Your task to perform on an android device: change notifications settings Image 0: 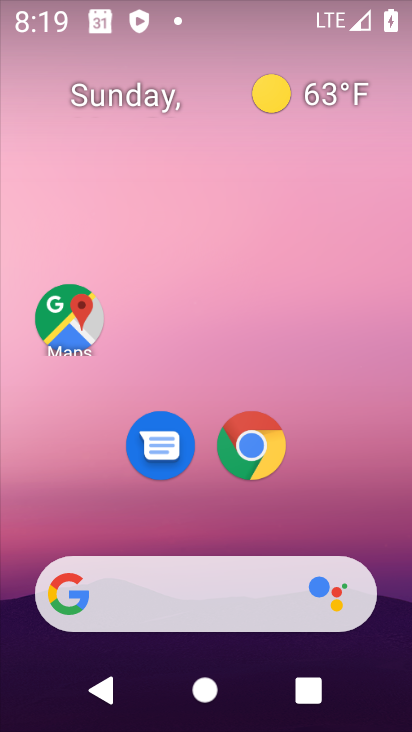
Step 0: drag from (228, 533) to (351, 1)
Your task to perform on an android device: change notifications settings Image 1: 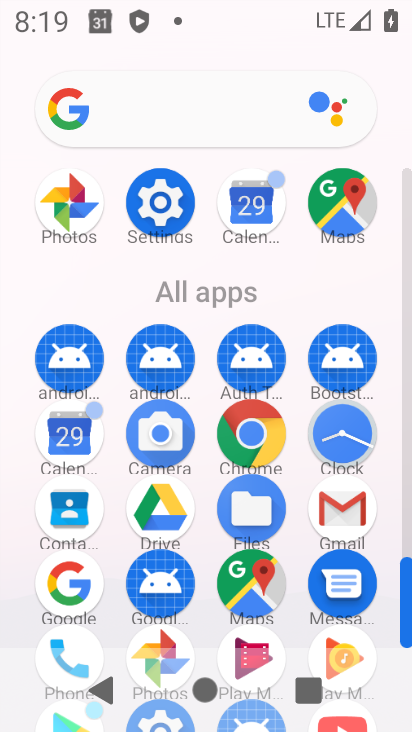
Step 1: click (163, 190)
Your task to perform on an android device: change notifications settings Image 2: 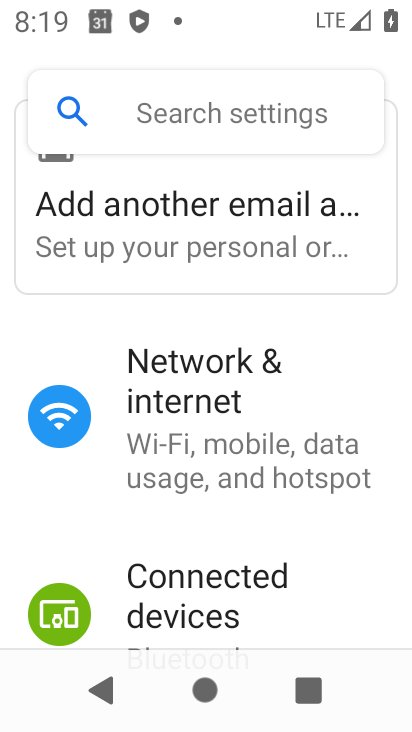
Step 2: drag from (199, 527) to (229, 8)
Your task to perform on an android device: change notifications settings Image 3: 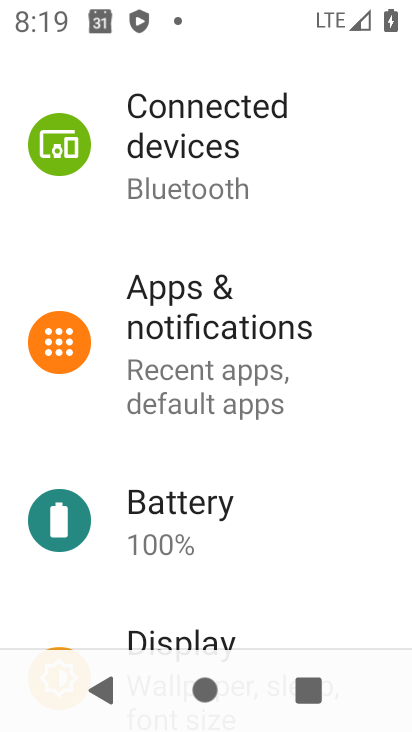
Step 3: click (178, 315)
Your task to perform on an android device: change notifications settings Image 4: 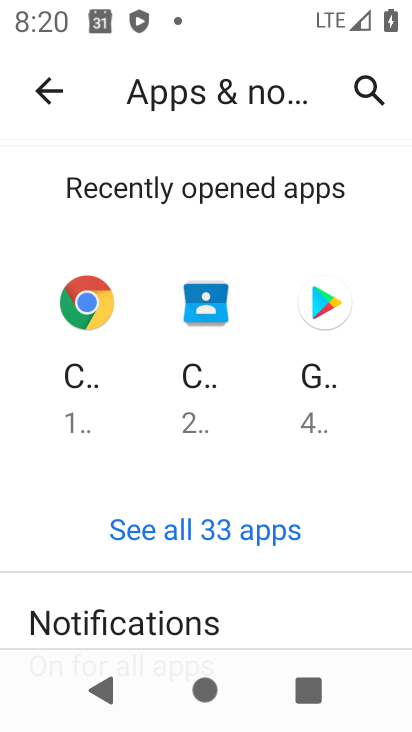
Step 4: drag from (172, 421) to (194, 256)
Your task to perform on an android device: change notifications settings Image 5: 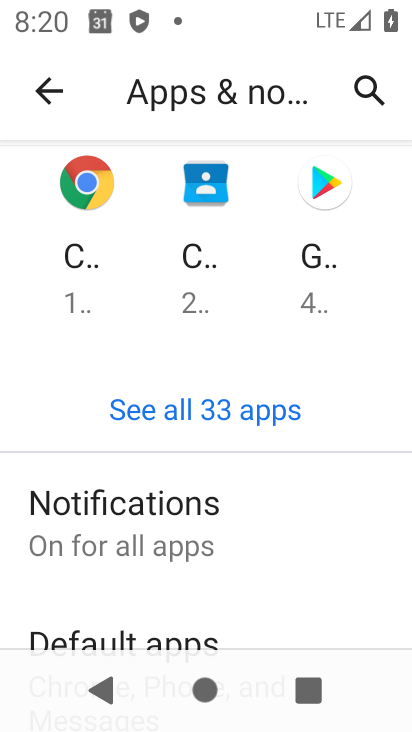
Step 5: click (126, 508)
Your task to perform on an android device: change notifications settings Image 6: 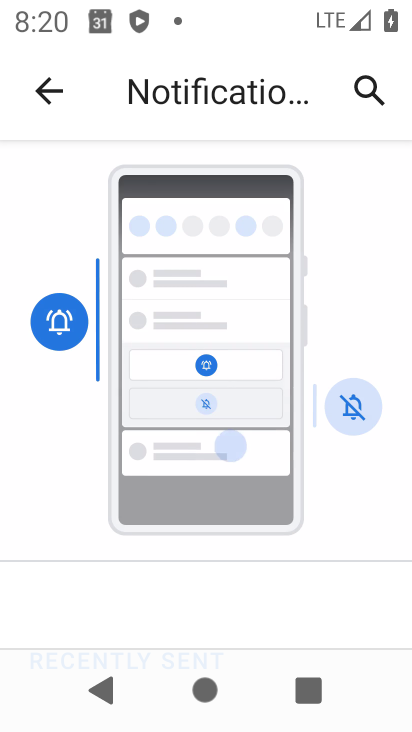
Step 6: drag from (215, 595) to (262, 75)
Your task to perform on an android device: change notifications settings Image 7: 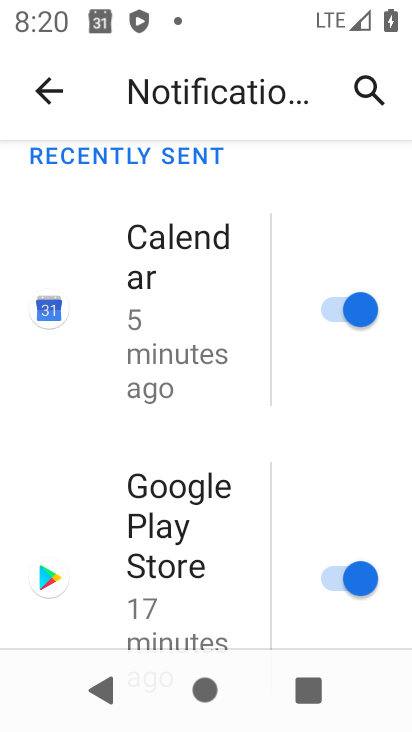
Step 7: drag from (227, 574) to (219, 422)
Your task to perform on an android device: change notifications settings Image 8: 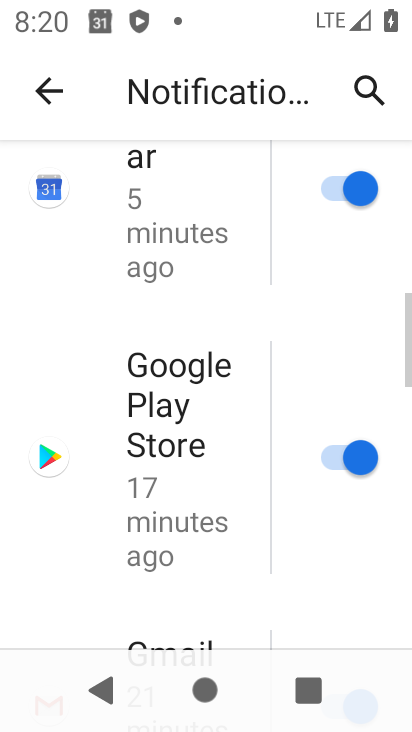
Step 8: drag from (185, 498) to (206, 93)
Your task to perform on an android device: change notifications settings Image 9: 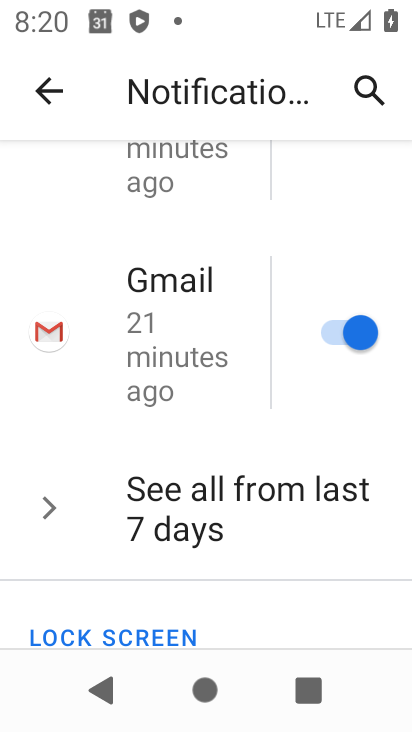
Step 9: click (226, 492)
Your task to perform on an android device: change notifications settings Image 10: 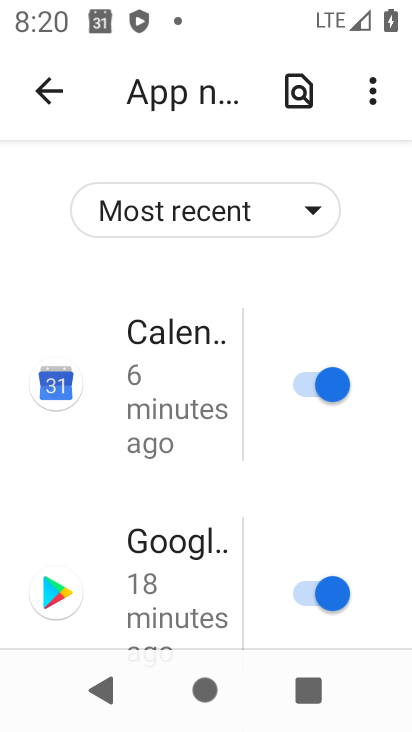
Step 10: click (323, 369)
Your task to perform on an android device: change notifications settings Image 11: 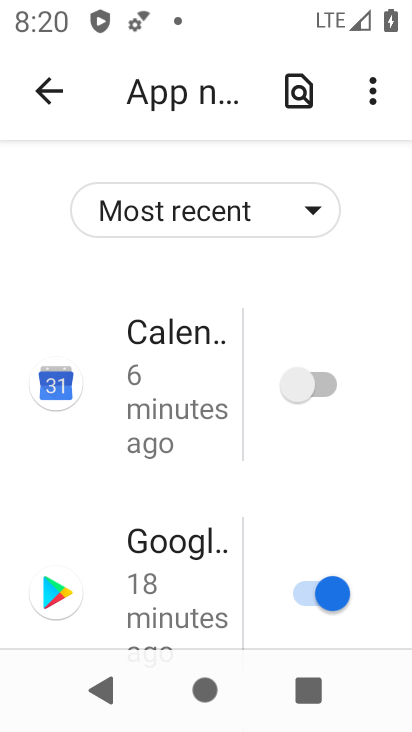
Step 11: click (312, 590)
Your task to perform on an android device: change notifications settings Image 12: 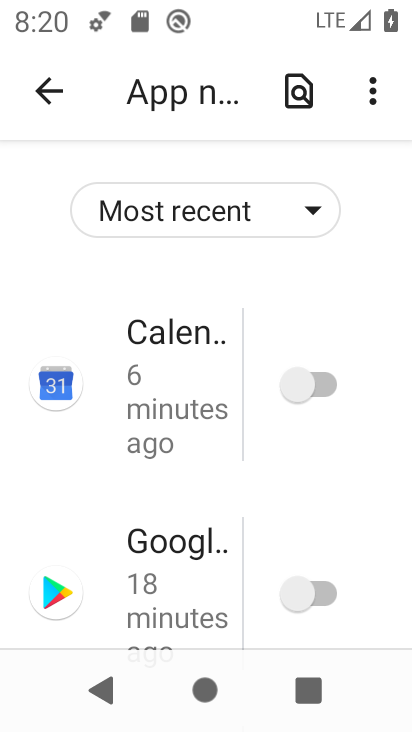
Step 12: drag from (8, 586) to (109, 159)
Your task to perform on an android device: change notifications settings Image 13: 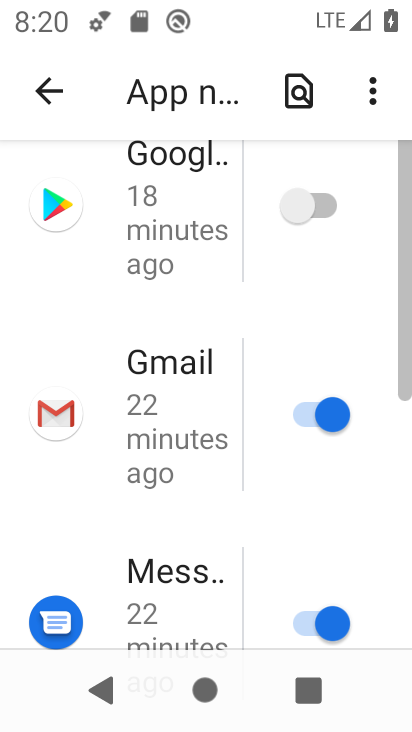
Step 13: click (323, 436)
Your task to perform on an android device: change notifications settings Image 14: 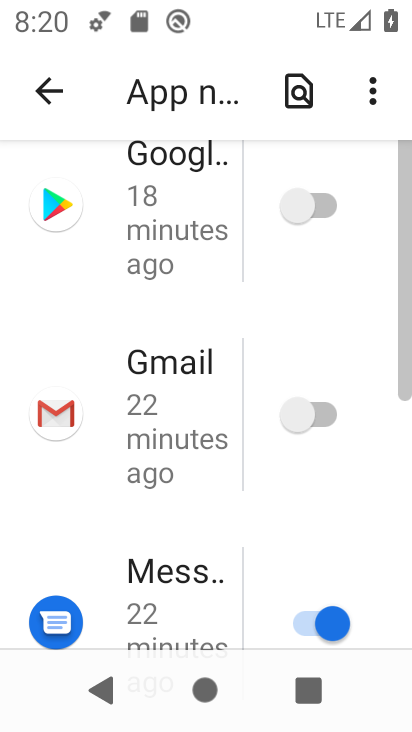
Step 14: click (309, 607)
Your task to perform on an android device: change notifications settings Image 15: 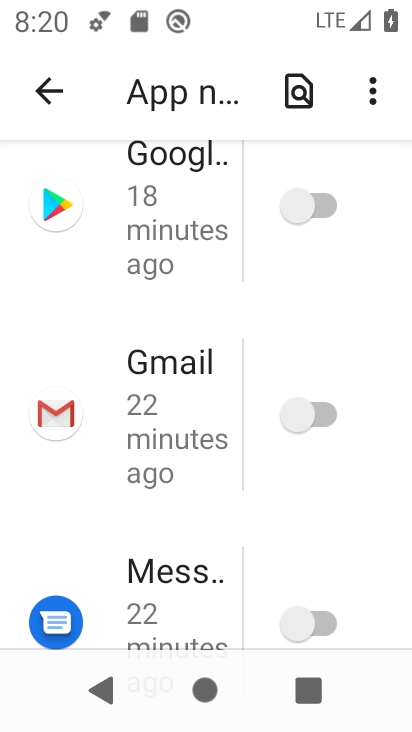
Step 15: drag from (173, 397) to (247, 79)
Your task to perform on an android device: change notifications settings Image 16: 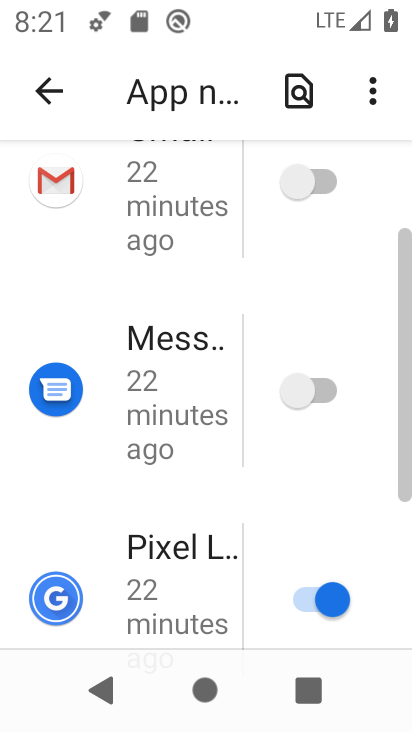
Step 16: click (305, 613)
Your task to perform on an android device: change notifications settings Image 17: 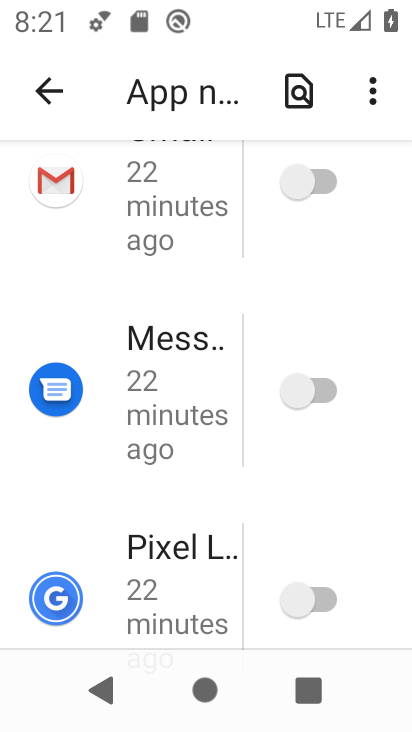
Step 17: drag from (222, 564) to (276, 211)
Your task to perform on an android device: change notifications settings Image 18: 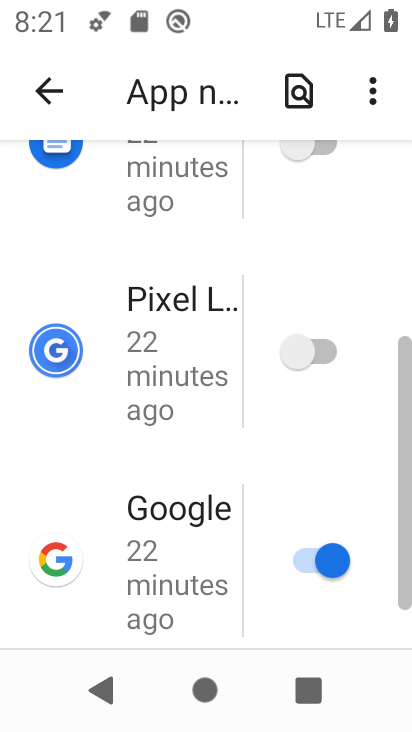
Step 18: drag from (203, 508) to (250, 50)
Your task to perform on an android device: change notifications settings Image 19: 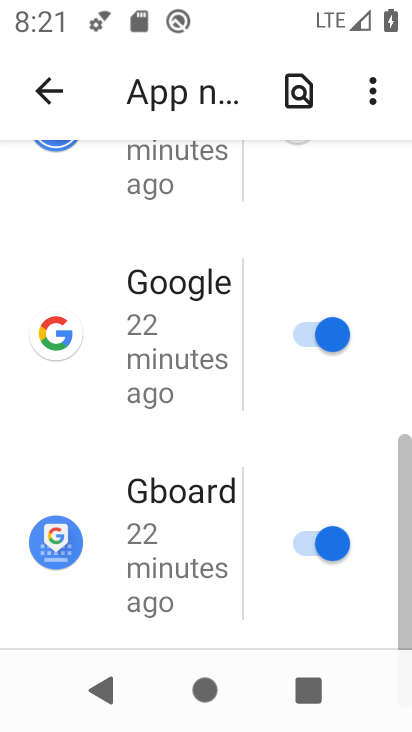
Step 19: click (316, 326)
Your task to perform on an android device: change notifications settings Image 20: 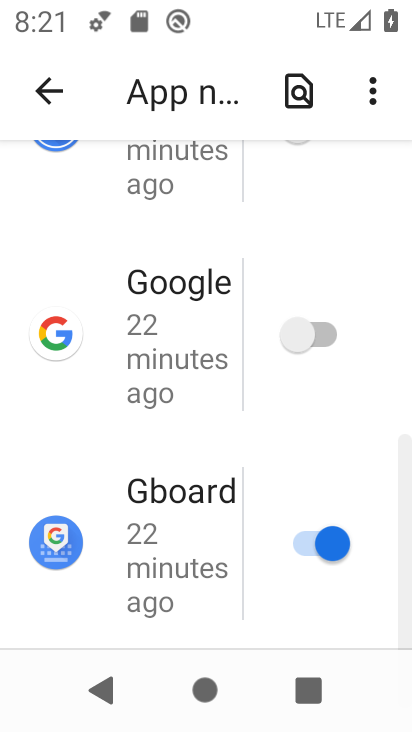
Step 20: click (309, 550)
Your task to perform on an android device: change notifications settings Image 21: 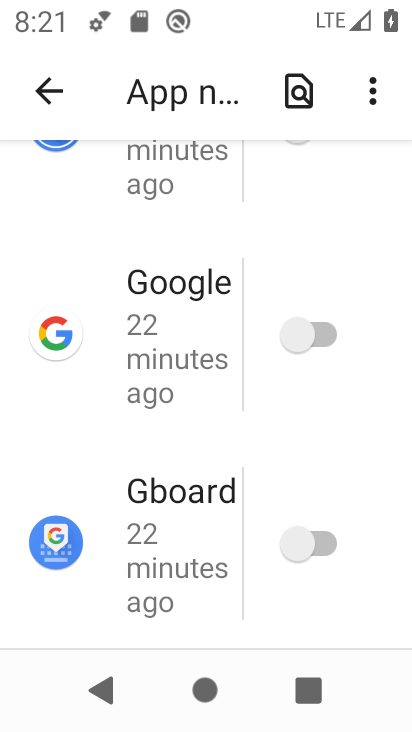
Step 21: drag from (182, 562) to (190, 133)
Your task to perform on an android device: change notifications settings Image 22: 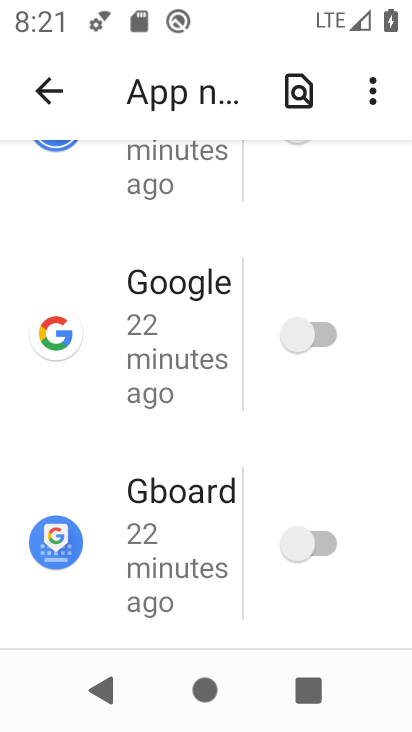
Step 22: click (53, 103)
Your task to perform on an android device: change notifications settings Image 23: 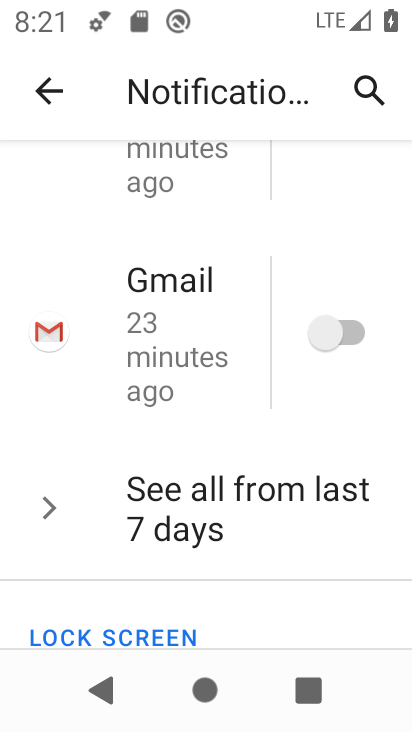
Step 23: drag from (120, 552) to (131, 124)
Your task to perform on an android device: change notifications settings Image 24: 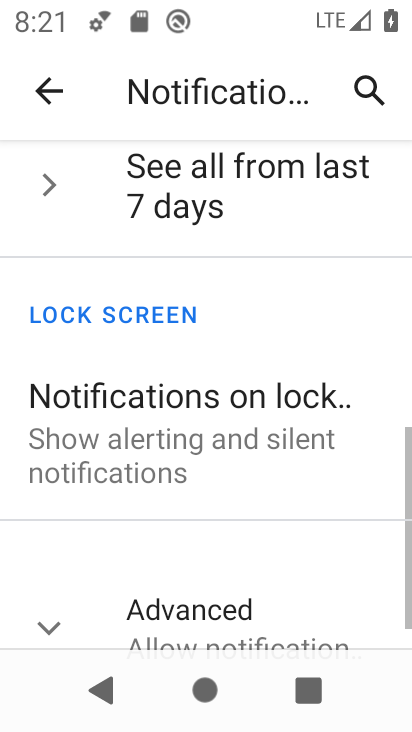
Step 24: click (118, 486)
Your task to perform on an android device: change notifications settings Image 25: 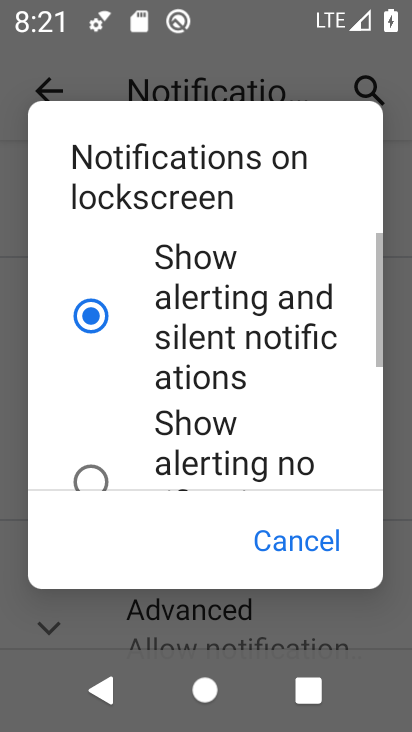
Step 25: click (142, 452)
Your task to perform on an android device: change notifications settings Image 26: 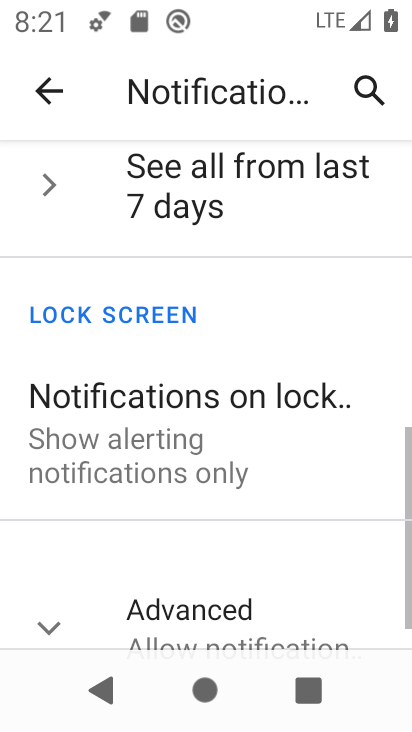
Step 26: drag from (139, 527) to (187, 194)
Your task to perform on an android device: change notifications settings Image 27: 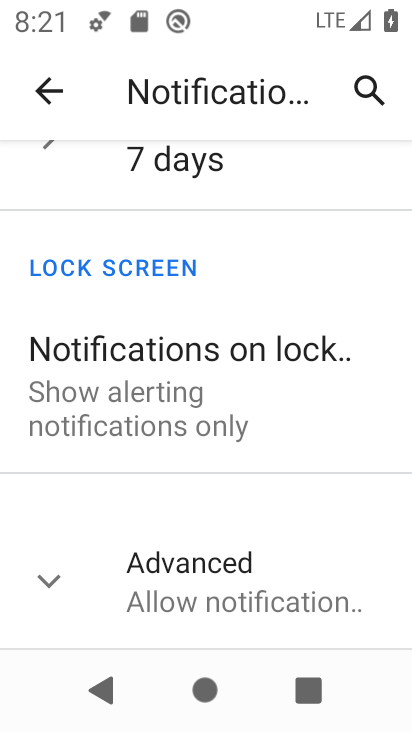
Step 27: click (114, 572)
Your task to perform on an android device: change notifications settings Image 28: 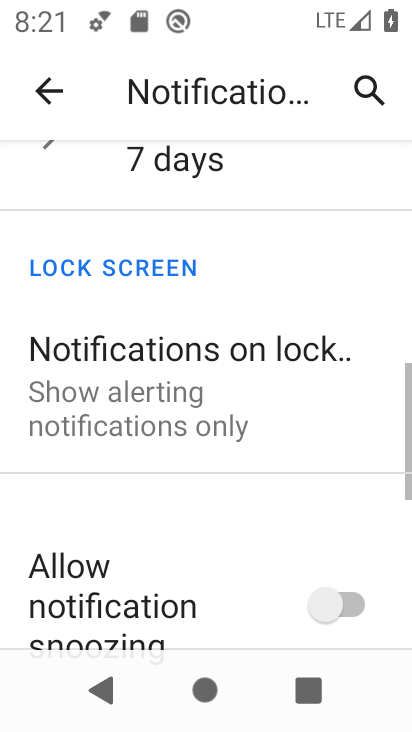
Step 28: drag from (137, 536) to (211, 160)
Your task to perform on an android device: change notifications settings Image 29: 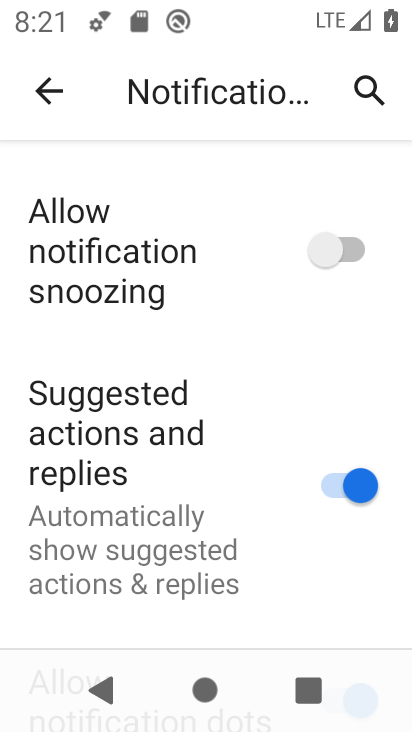
Step 29: click (332, 254)
Your task to perform on an android device: change notifications settings Image 30: 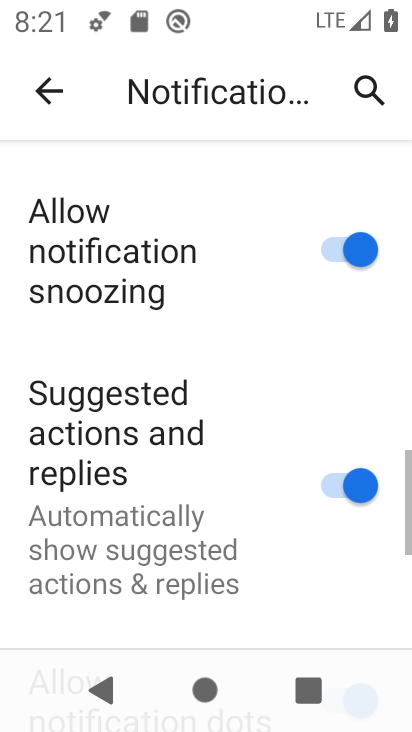
Step 30: drag from (330, 500) to (191, 250)
Your task to perform on an android device: change notifications settings Image 31: 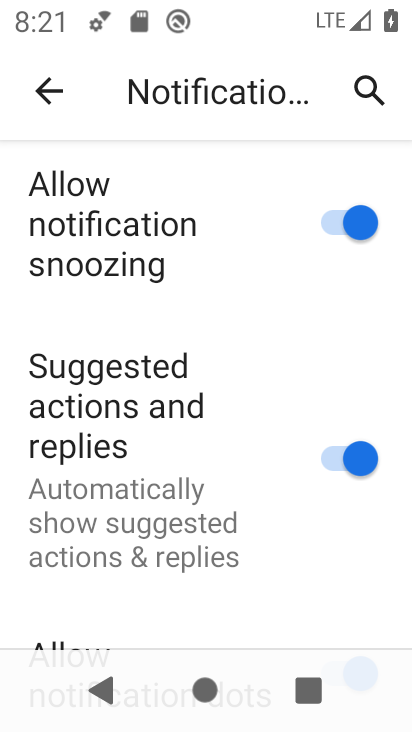
Step 31: drag from (239, 542) to (274, 327)
Your task to perform on an android device: change notifications settings Image 32: 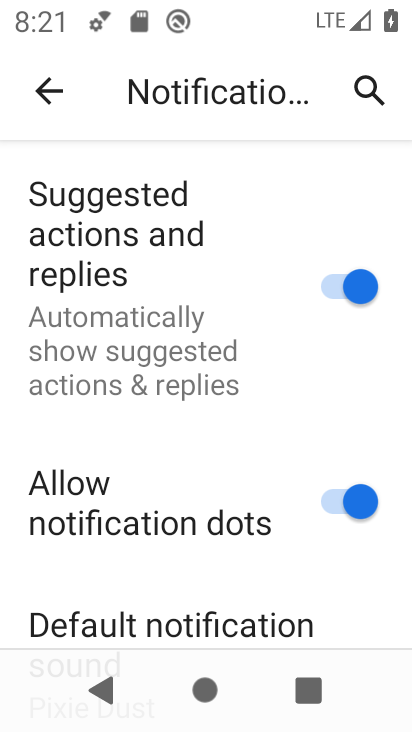
Step 32: click (353, 284)
Your task to perform on an android device: change notifications settings Image 33: 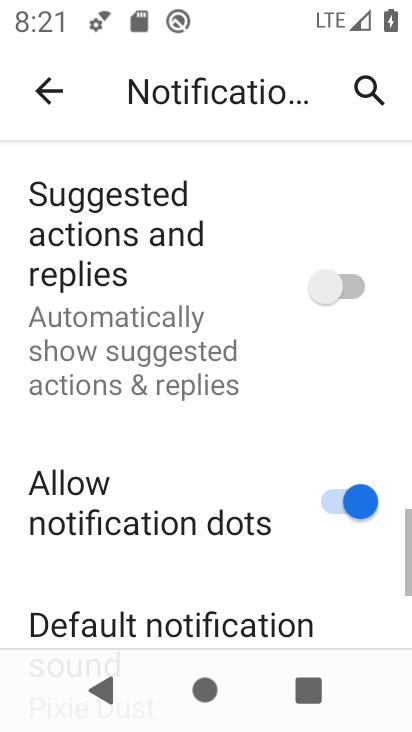
Step 33: click (325, 513)
Your task to perform on an android device: change notifications settings Image 34: 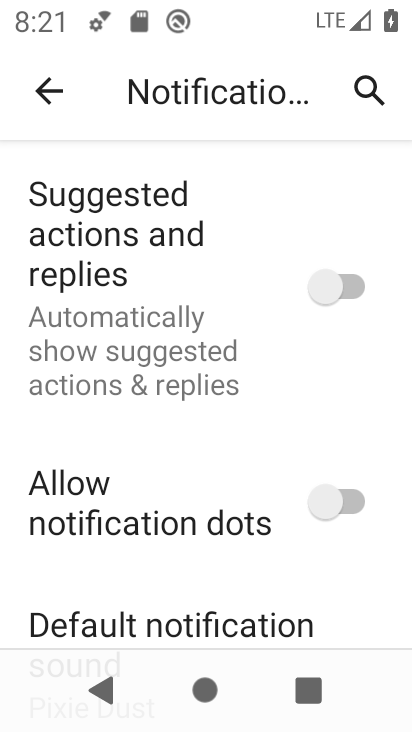
Step 34: task complete